Your task to perform on an android device: Go to Yahoo.com Image 0: 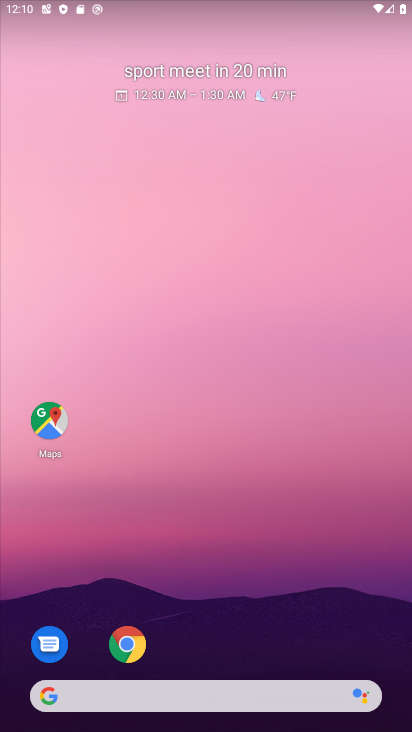
Step 0: click (42, 415)
Your task to perform on an android device: Go to Yahoo.com Image 1: 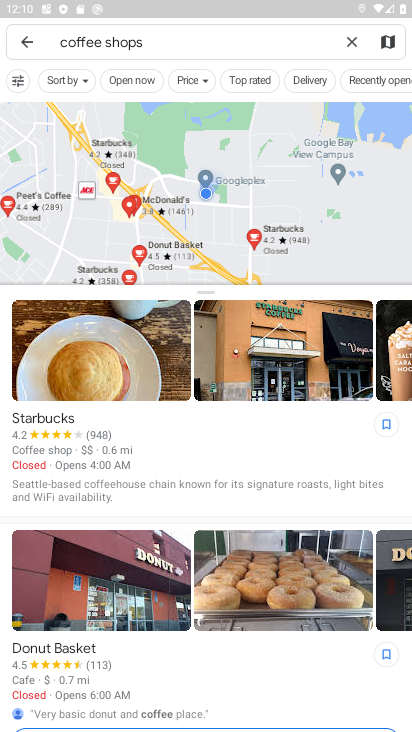
Step 1: press back button
Your task to perform on an android device: Go to Yahoo.com Image 2: 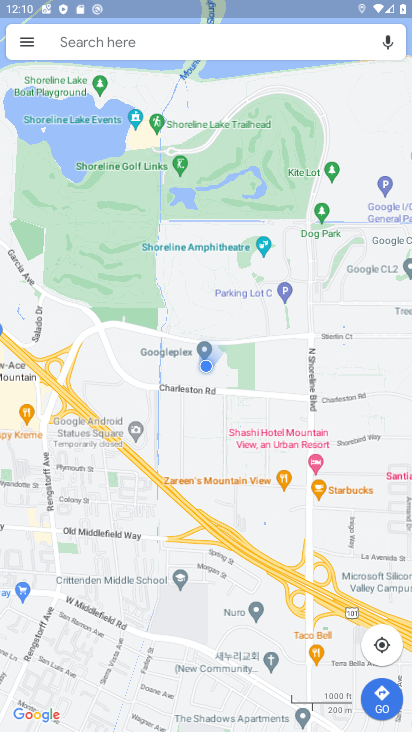
Step 2: press back button
Your task to perform on an android device: Go to Yahoo.com Image 3: 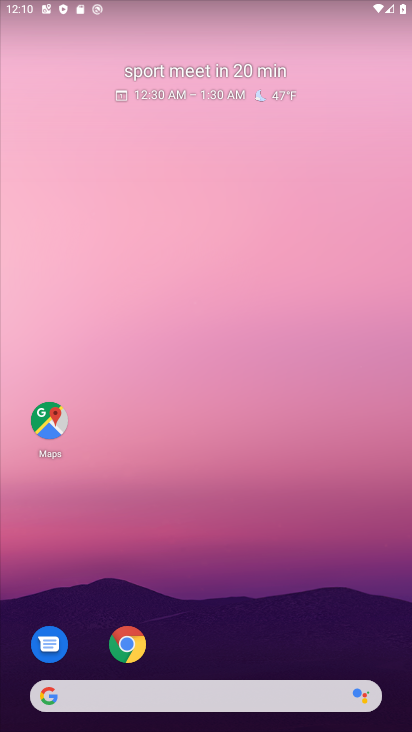
Step 3: click (120, 641)
Your task to perform on an android device: Go to Yahoo.com Image 4: 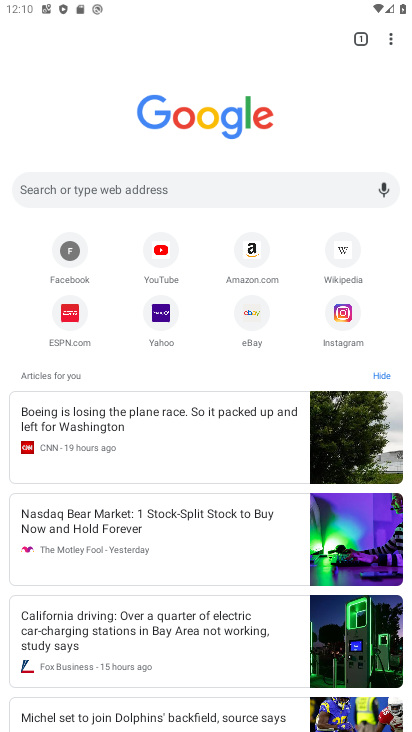
Step 4: click (165, 311)
Your task to perform on an android device: Go to Yahoo.com Image 5: 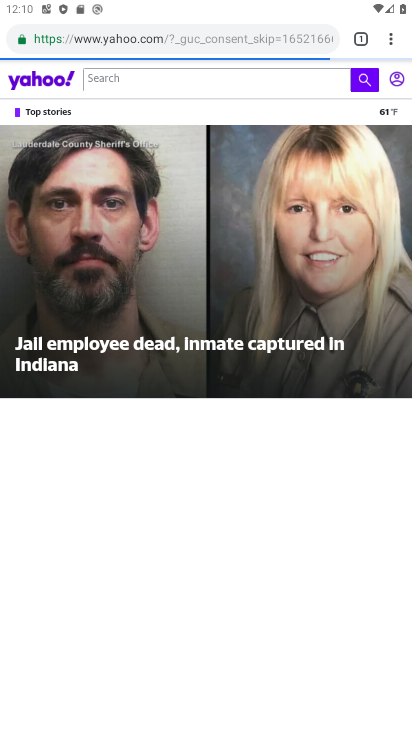
Step 5: task complete